Your task to perform on an android device: open app "HBO Max: Stream TV & Movies" (install if not already installed) Image 0: 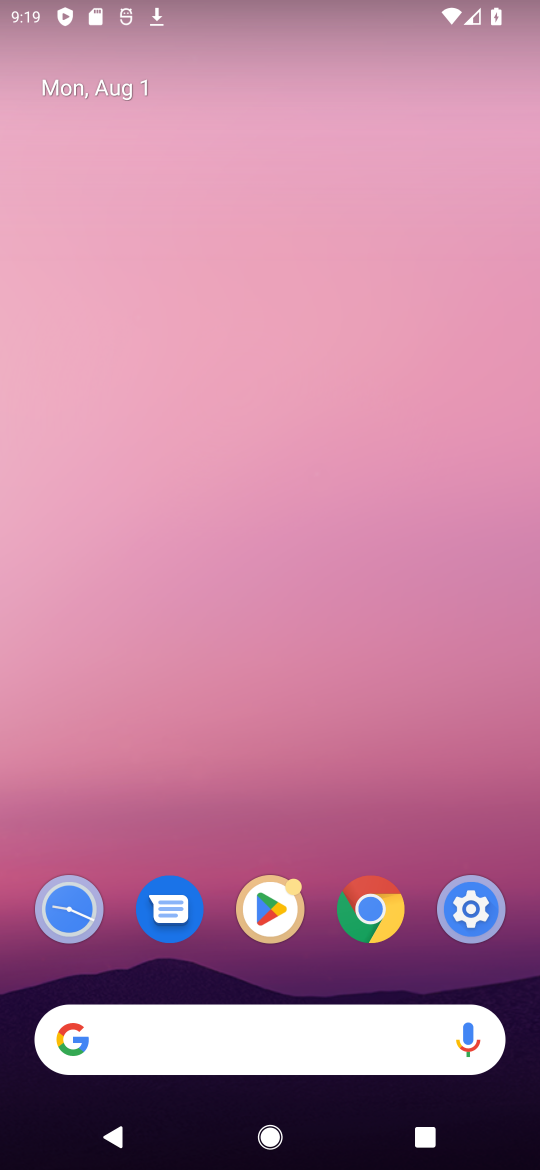
Step 0: click (279, 892)
Your task to perform on an android device: open app "HBO Max: Stream TV & Movies" (install if not already installed) Image 1: 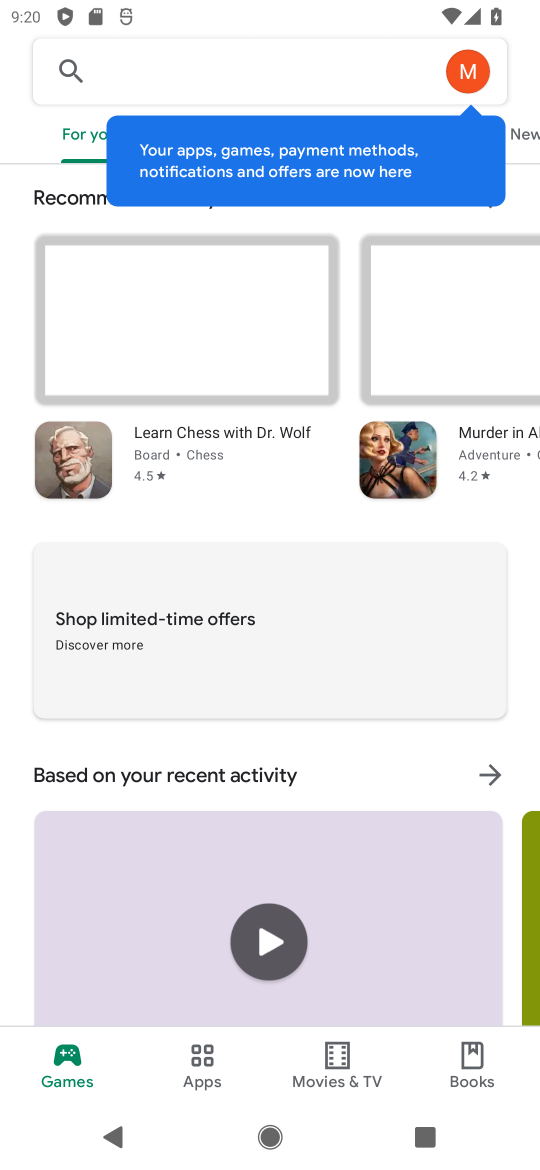
Step 1: click (295, 53)
Your task to perform on an android device: open app "HBO Max: Stream TV & Movies" (install if not already installed) Image 2: 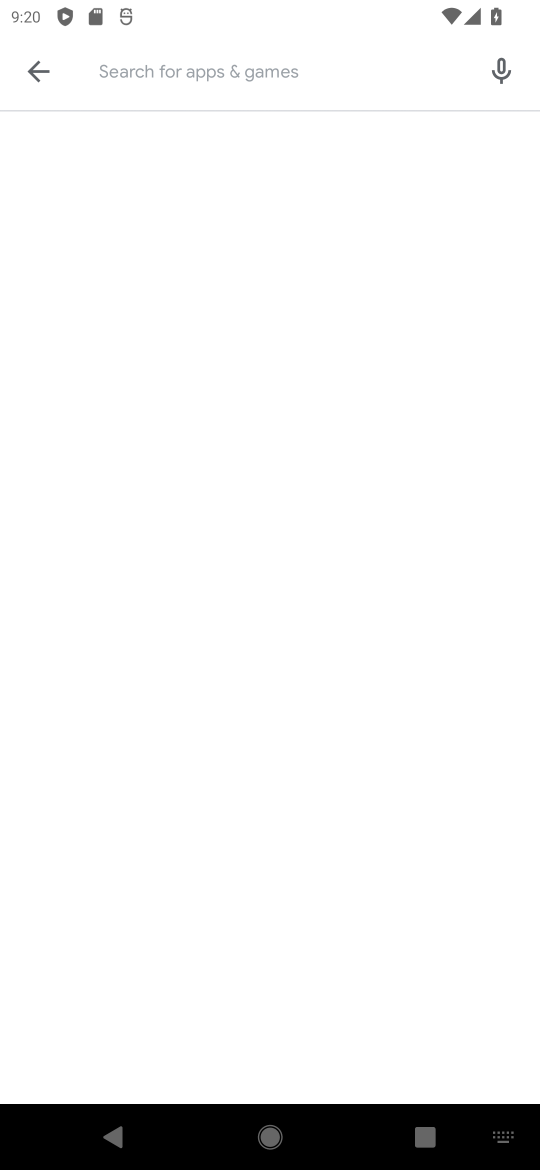
Step 2: type "HBO max"
Your task to perform on an android device: open app "HBO Max: Stream TV & Movies" (install if not already installed) Image 3: 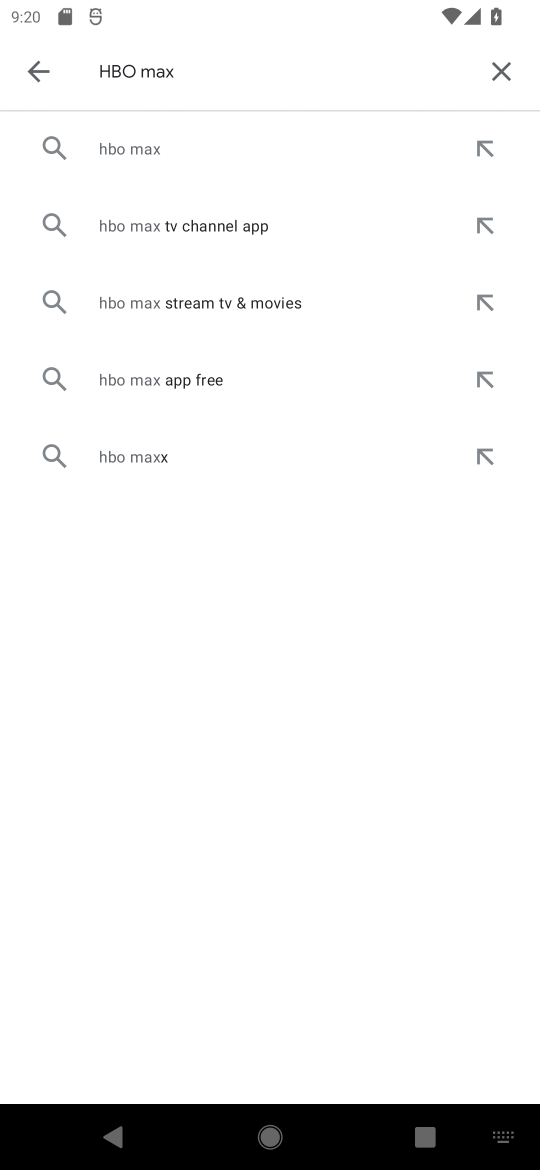
Step 3: click (154, 137)
Your task to perform on an android device: open app "HBO Max: Stream TV & Movies" (install if not already installed) Image 4: 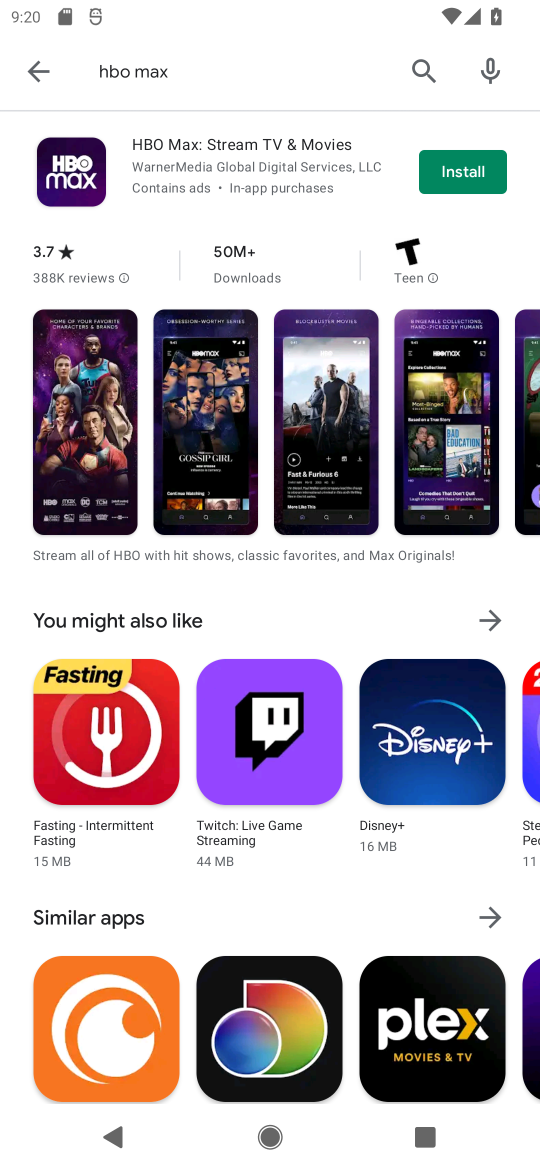
Step 4: click (463, 169)
Your task to perform on an android device: open app "HBO Max: Stream TV & Movies" (install if not already installed) Image 5: 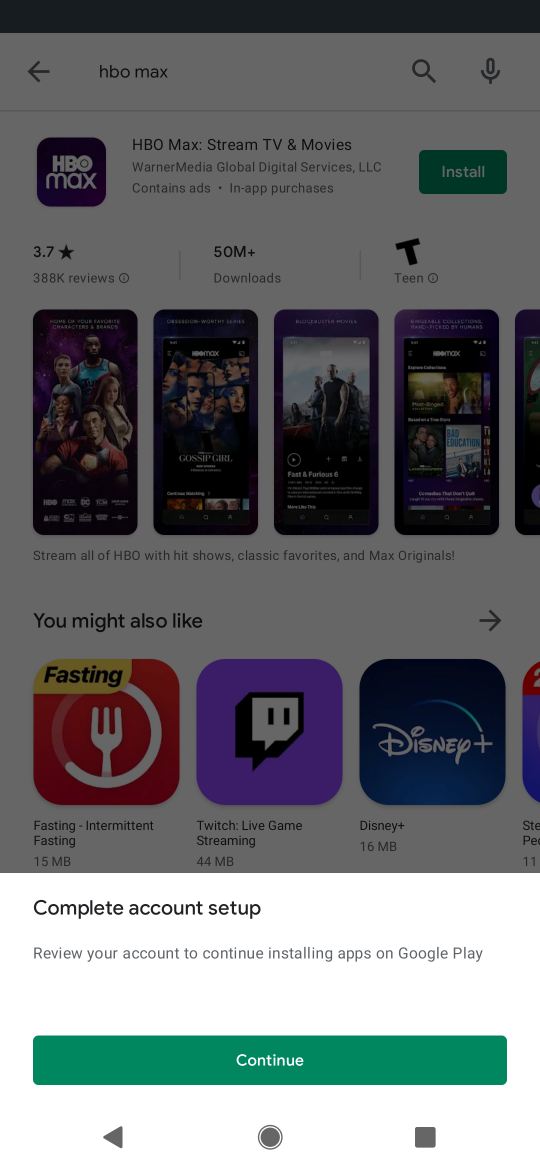
Step 5: click (236, 1065)
Your task to perform on an android device: open app "HBO Max: Stream TV & Movies" (install if not already installed) Image 6: 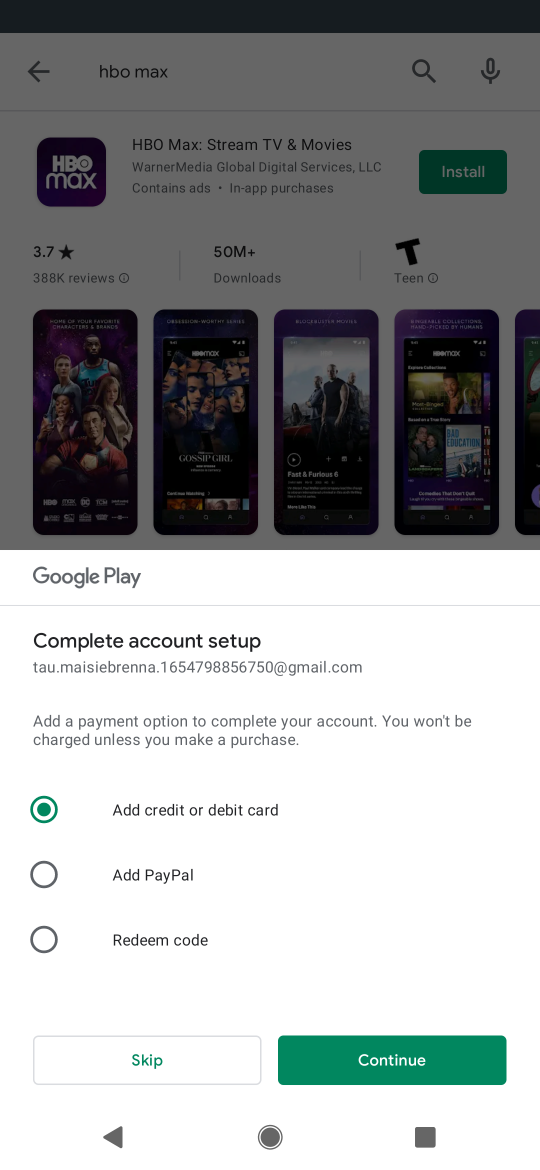
Step 6: click (201, 1049)
Your task to perform on an android device: open app "HBO Max: Stream TV & Movies" (install if not already installed) Image 7: 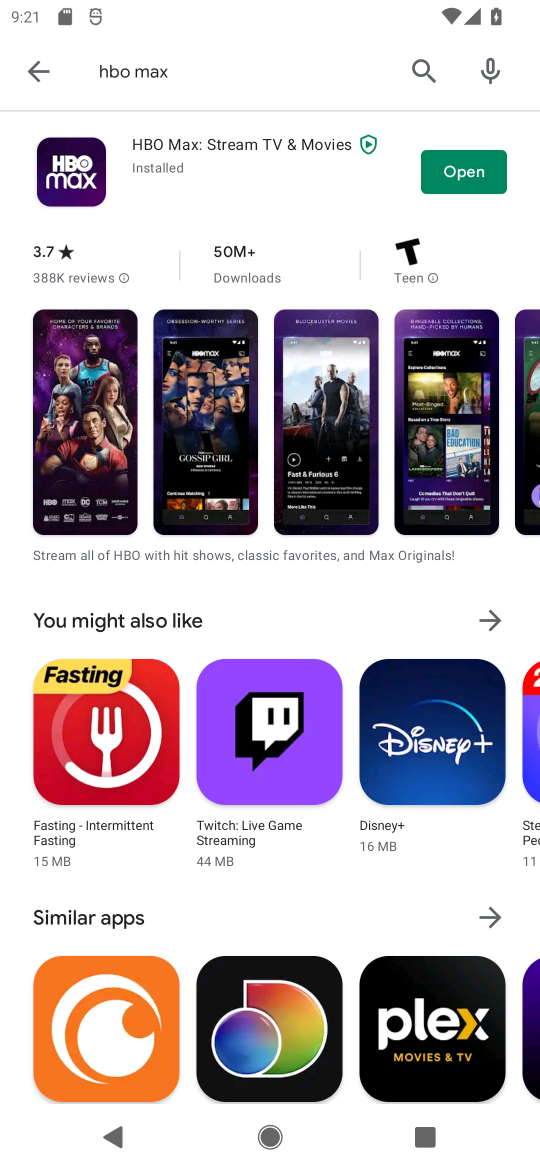
Step 7: click (480, 181)
Your task to perform on an android device: open app "HBO Max: Stream TV & Movies" (install if not already installed) Image 8: 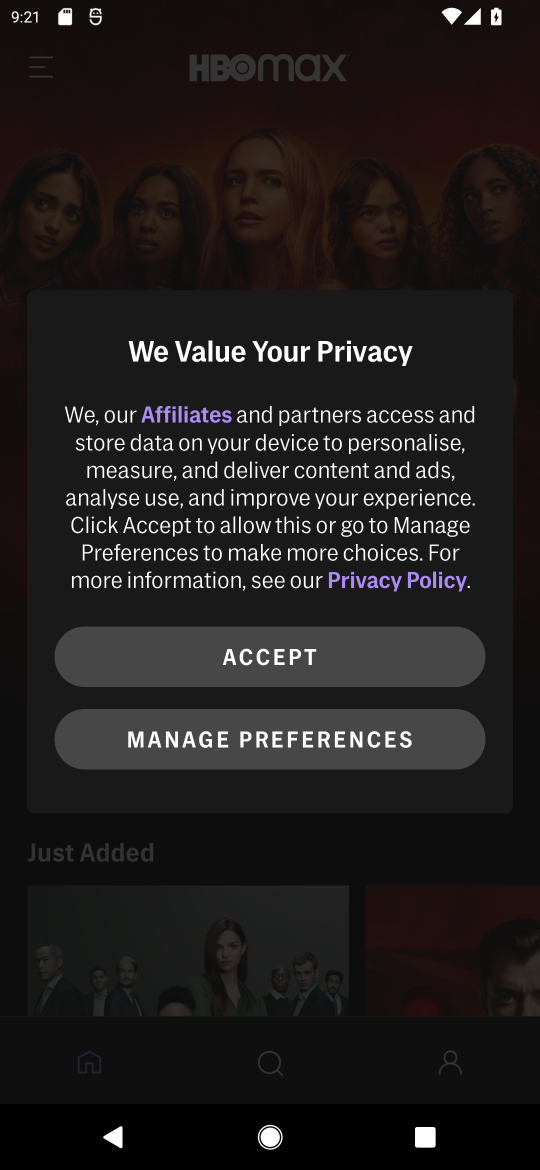
Step 8: click (274, 677)
Your task to perform on an android device: open app "HBO Max: Stream TV & Movies" (install if not already installed) Image 9: 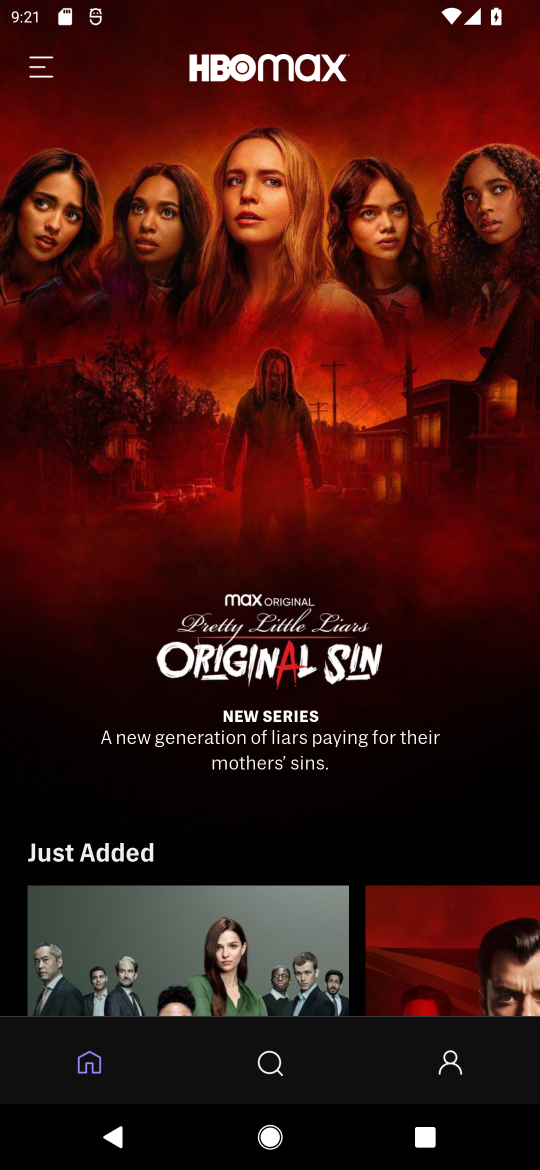
Step 9: task complete